Your task to perform on an android device: Open accessibility settings Image 0: 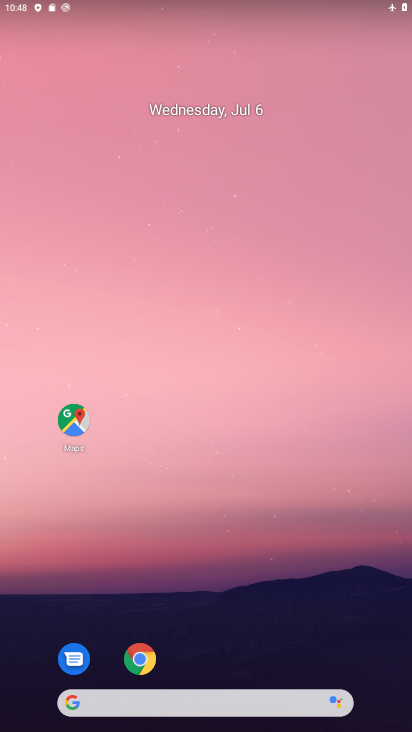
Step 0: drag from (204, 635) to (216, 122)
Your task to perform on an android device: Open accessibility settings Image 1: 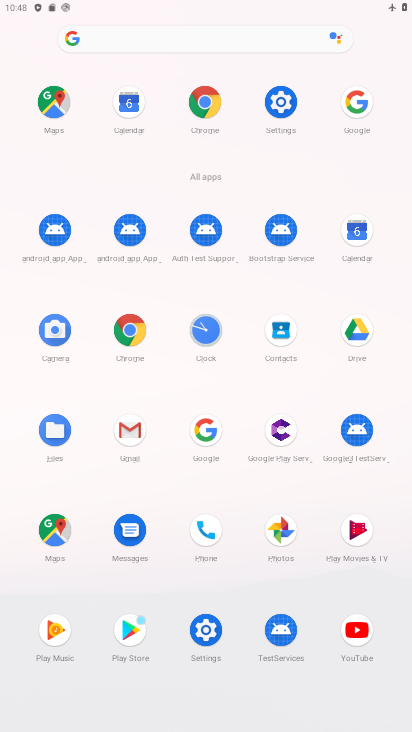
Step 1: click (289, 113)
Your task to perform on an android device: Open accessibility settings Image 2: 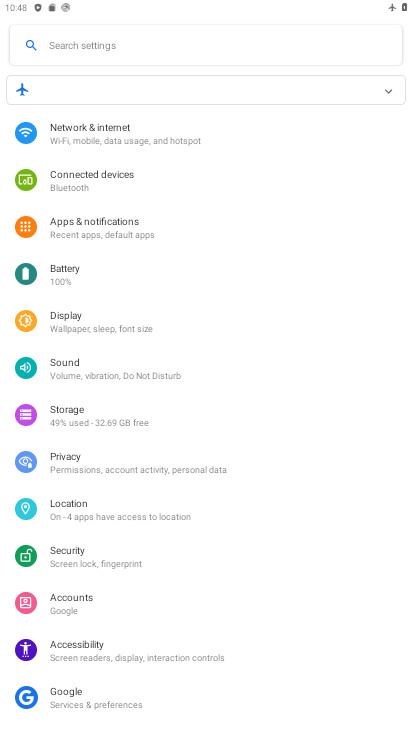
Step 2: click (140, 648)
Your task to perform on an android device: Open accessibility settings Image 3: 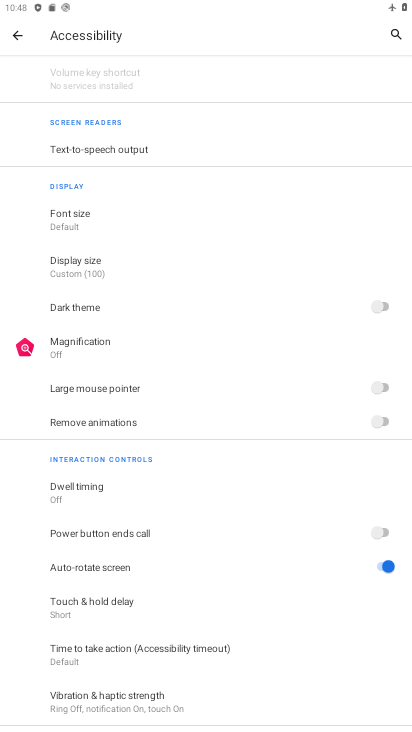
Step 3: task complete